Your task to perform on an android device: Open Reddit.com Image 0: 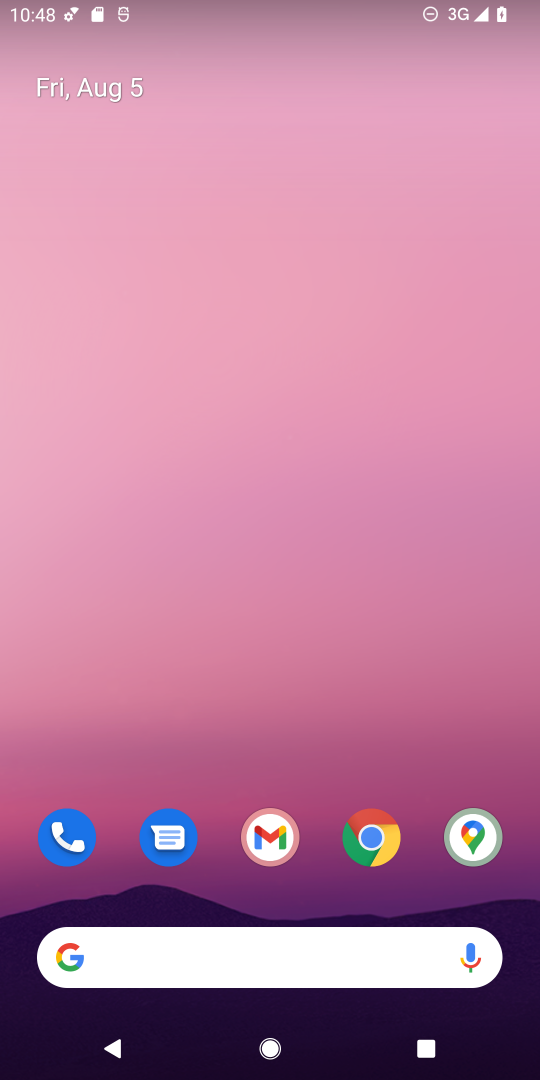
Step 0: click (334, 971)
Your task to perform on an android device: Open Reddit.com Image 1: 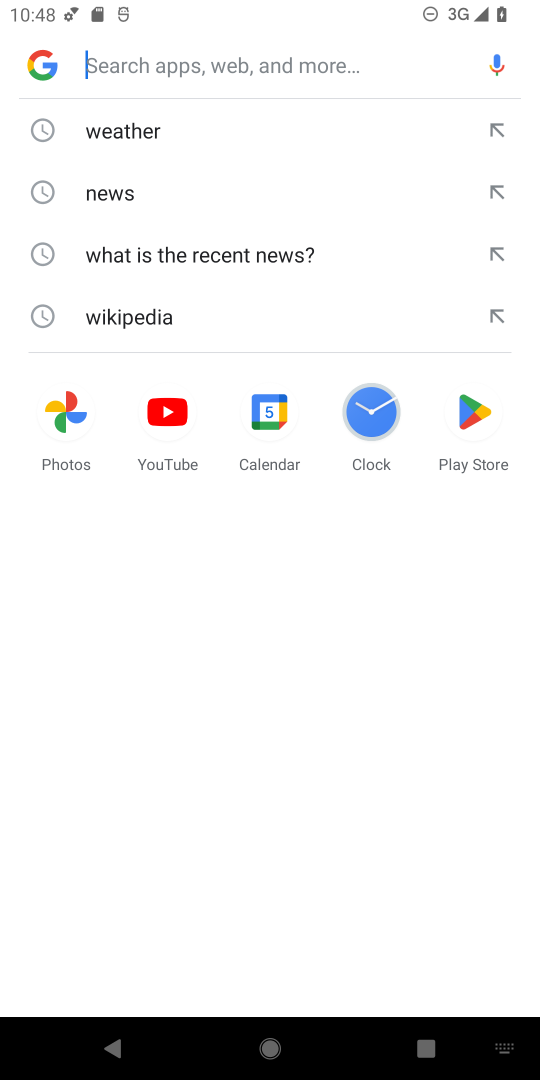
Step 1: type "reddif.com"
Your task to perform on an android device: Open Reddit.com Image 2: 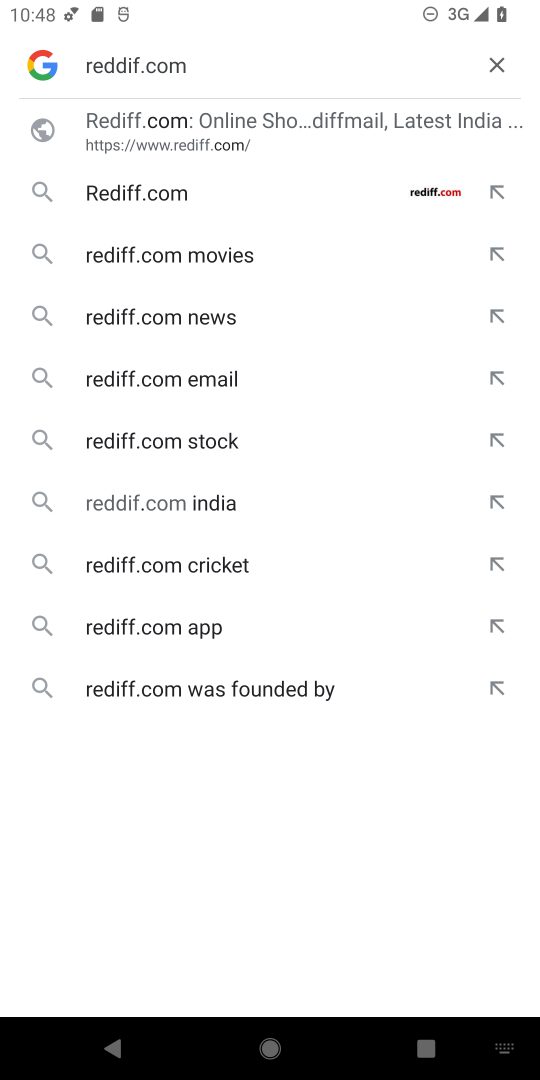
Step 2: click (254, 123)
Your task to perform on an android device: Open Reddit.com Image 3: 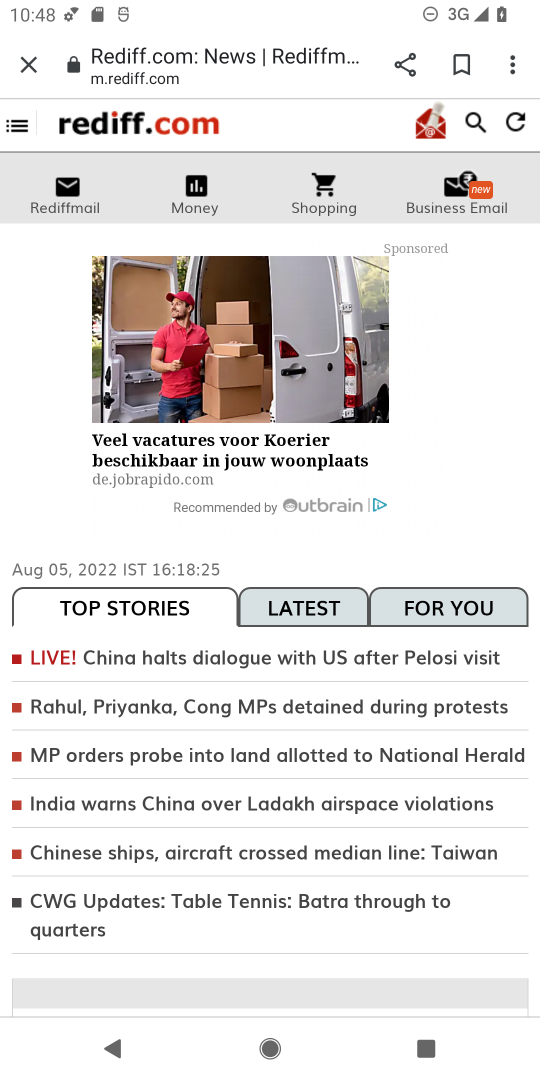
Step 3: task complete